Your task to perform on an android device: Open settings on Google Maps Image 0: 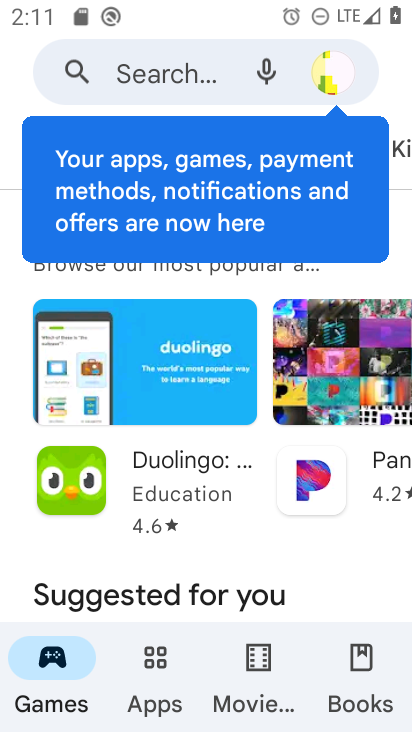
Step 0: press home button
Your task to perform on an android device: Open settings on Google Maps Image 1: 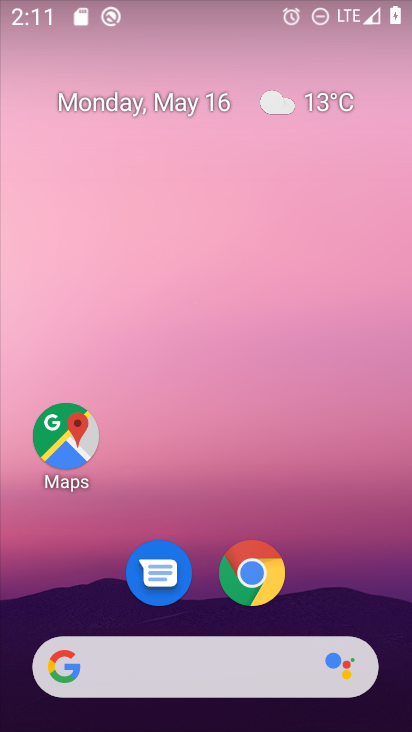
Step 1: click (72, 419)
Your task to perform on an android device: Open settings on Google Maps Image 2: 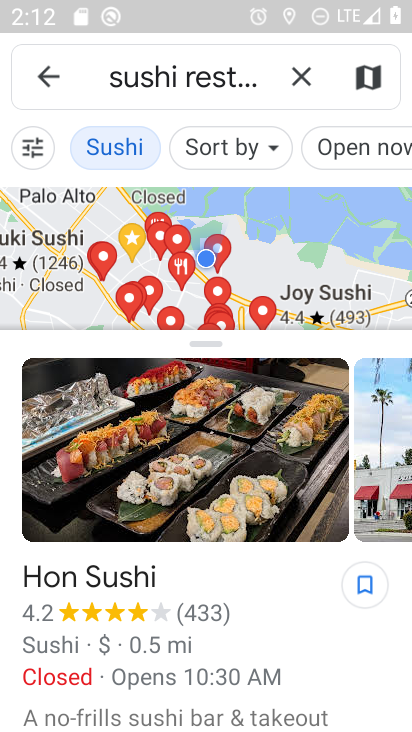
Step 2: click (50, 81)
Your task to perform on an android device: Open settings on Google Maps Image 3: 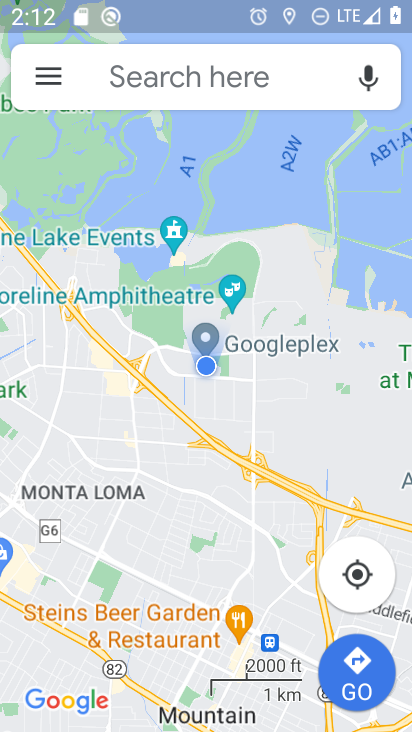
Step 3: click (50, 81)
Your task to perform on an android device: Open settings on Google Maps Image 4: 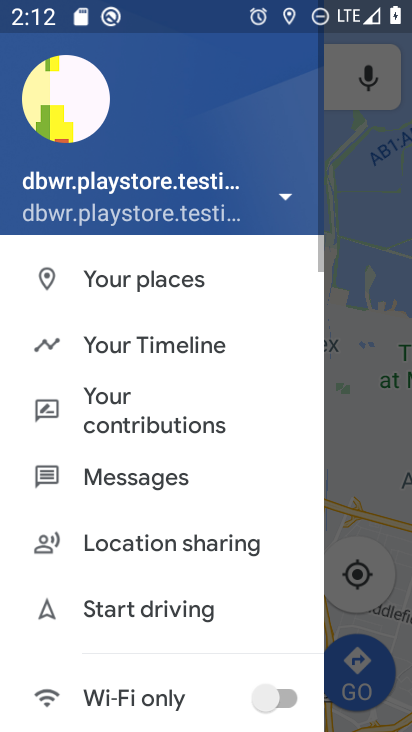
Step 4: drag from (200, 587) to (170, 39)
Your task to perform on an android device: Open settings on Google Maps Image 5: 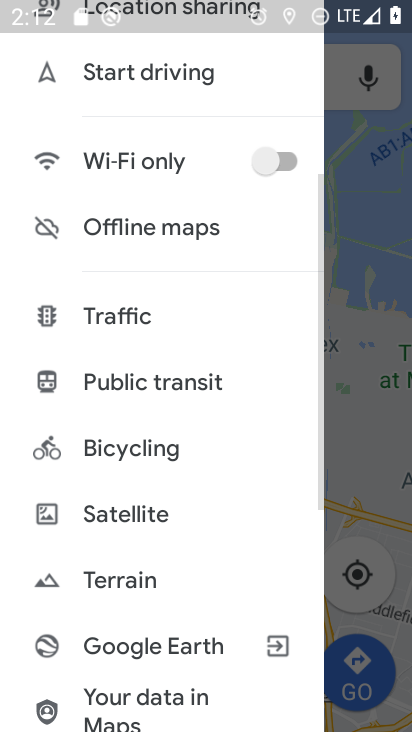
Step 5: drag from (117, 627) to (101, 125)
Your task to perform on an android device: Open settings on Google Maps Image 6: 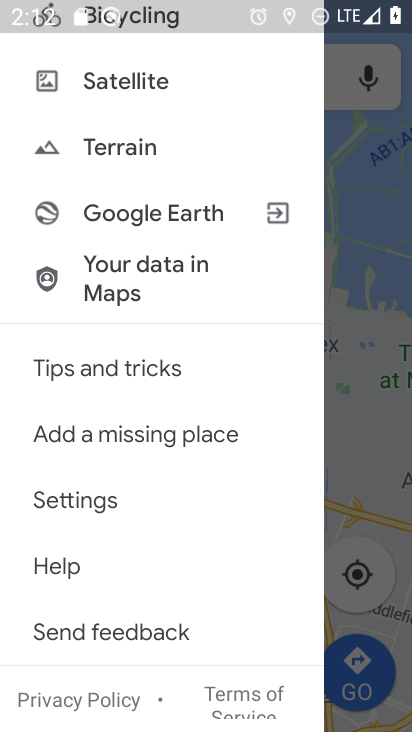
Step 6: click (66, 512)
Your task to perform on an android device: Open settings on Google Maps Image 7: 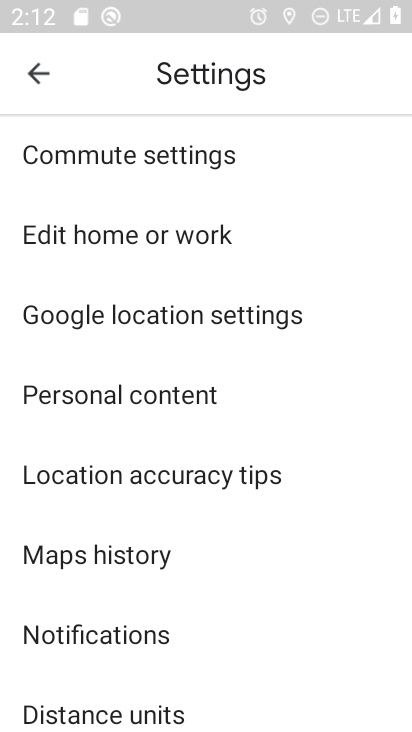
Step 7: task complete